Your task to perform on an android device: Check the weather Image 0: 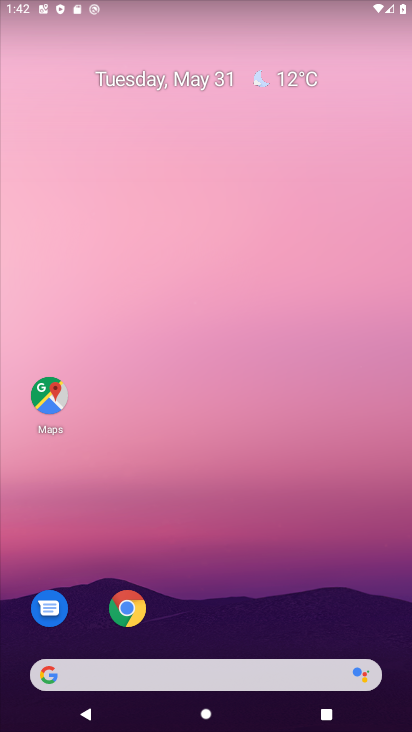
Step 0: drag from (305, 482) to (218, 100)
Your task to perform on an android device: Check the weather Image 1: 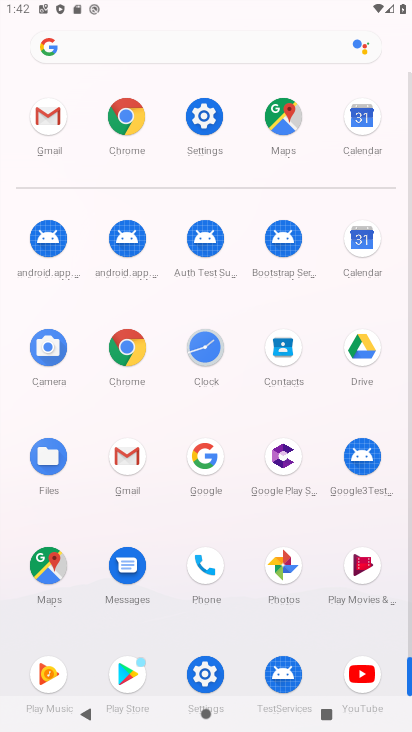
Step 1: click (119, 127)
Your task to perform on an android device: Check the weather Image 2: 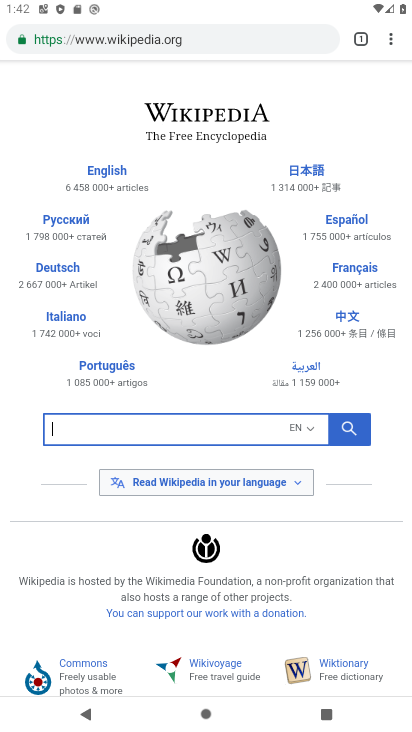
Step 2: click (190, 39)
Your task to perform on an android device: Check the weather Image 3: 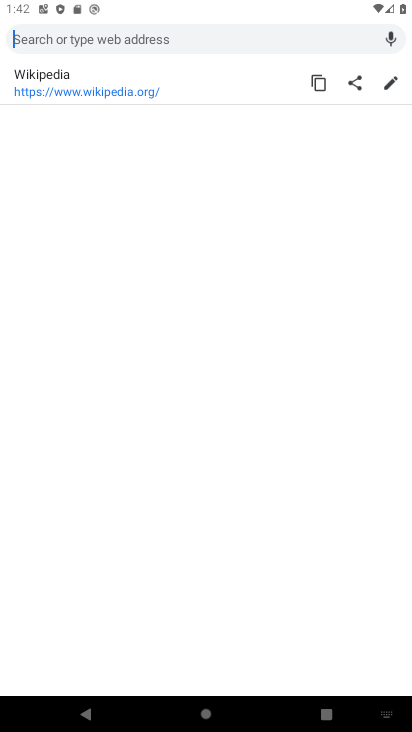
Step 3: type "check the weather"
Your task to perform on an android device: Check the weather Image 4: 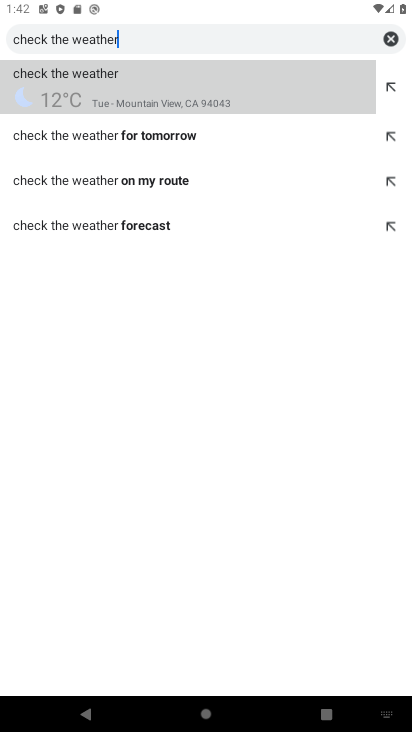
Step 4: click (68, 75)
Your task to perform on an android device: Check the weather Image 5: 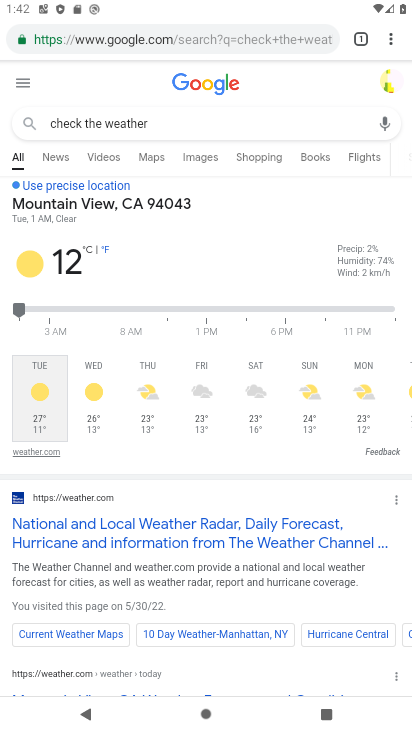
Step 5: task complete